Your task to perform on an android device: change the clock display to analog Image 0: 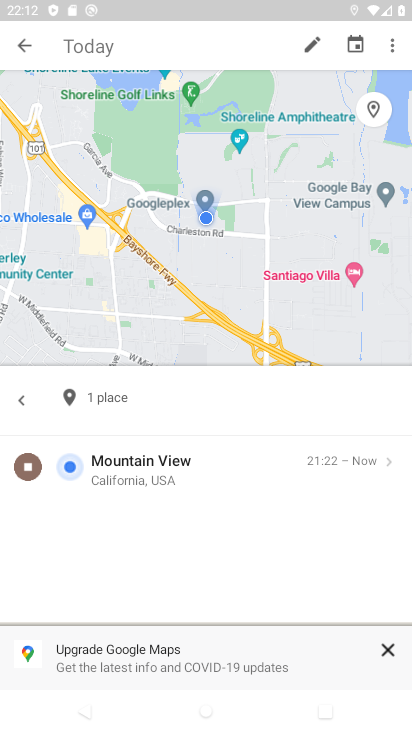
Step 0: press home button
Your task to perform on an android device: change the clock display to analog Image 1: 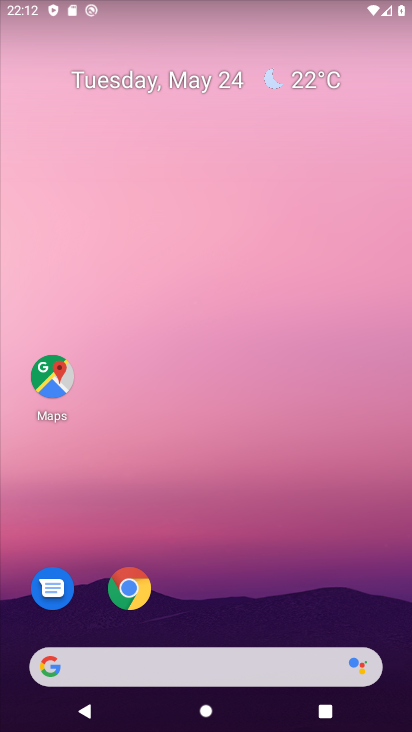
Step 1: drag from (170, 643) to (369, 66)
Your task to perform on an android device: change the clock display to analog Image 2: 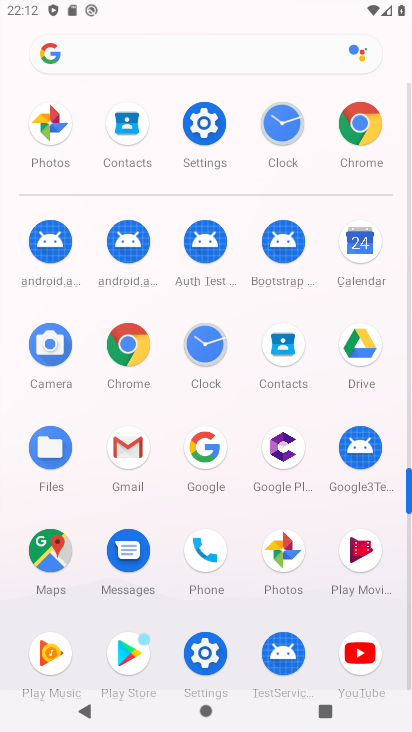
Step 2: click (303, 115)
Your task to perform on an android device: change the clock display to analog Image 3: 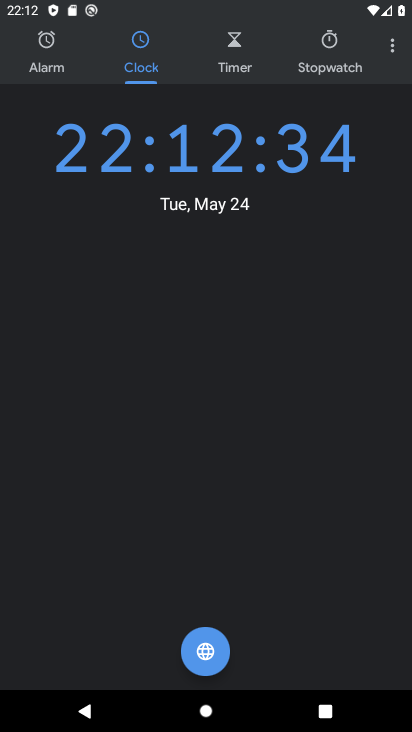
Step 3: click (399, 47)
Your task to perform on an android device: change the clock display to analog Image 4: 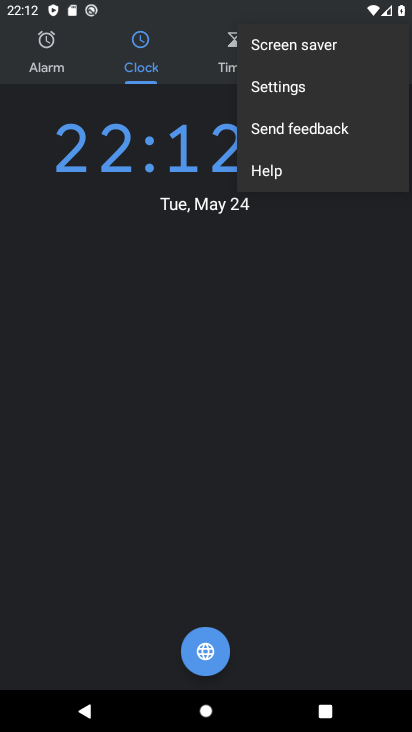
Step 4: click (311, 85)
Your task to perform on an android device: change the clock display to analog Image 5: 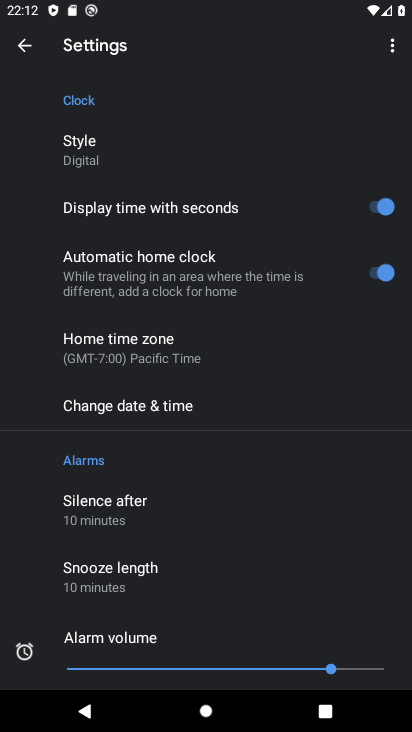
Step 5: click (81, 161)
Your task to perform on an android device: change the clock display to analog Image 6: 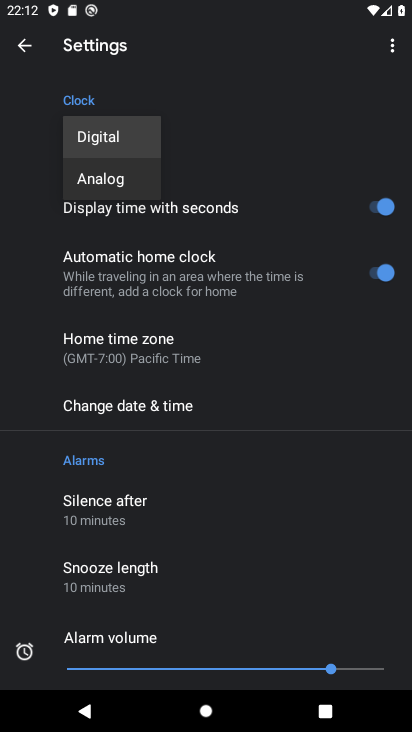
Step 6: click (103, 180)
Your task to perform on an android device: change the clock display to analog Image 7: 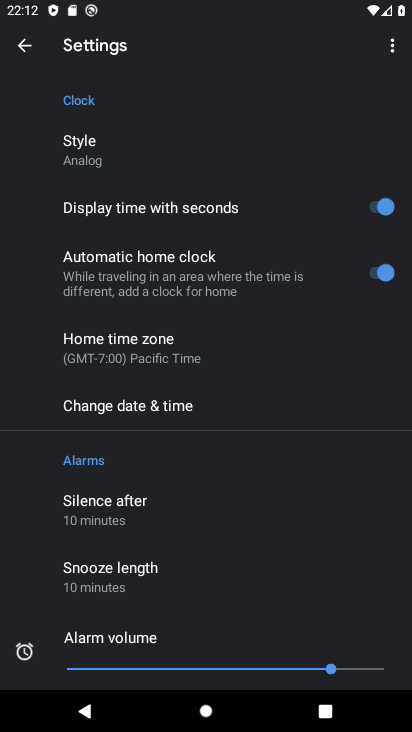
Step 7: task complete